Your task to perform on an android device: Go to sound settings Image 0: 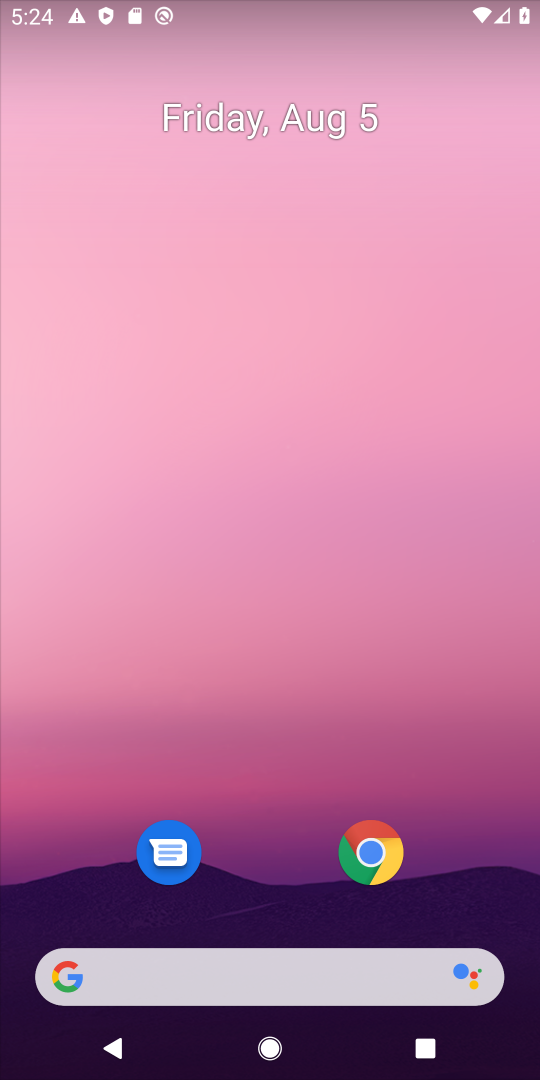
Step 0: drag from (278, 803) to (340, 275)
Your task to perform on an android device: Go to sound settings Image 1: 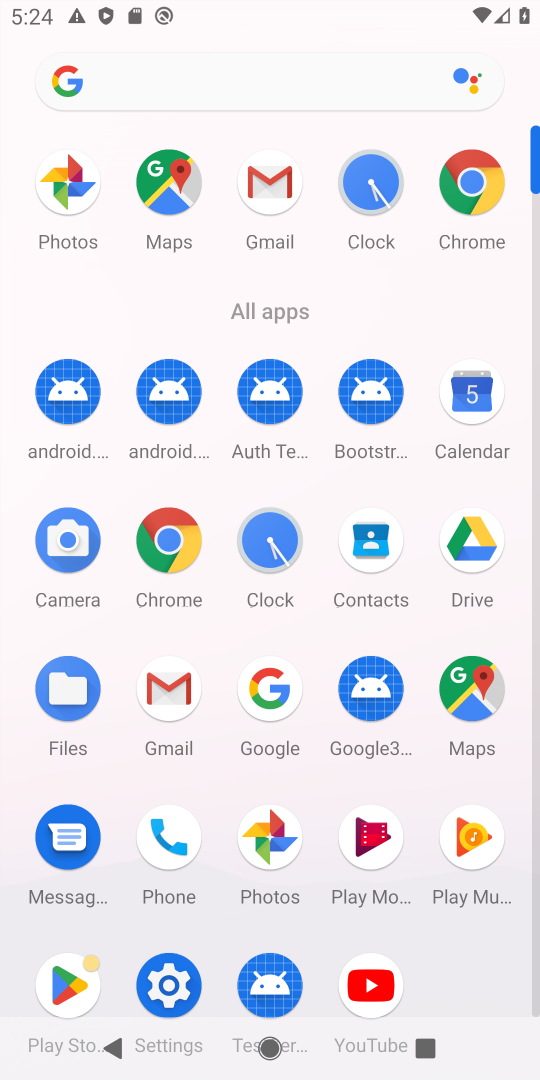
Step 1: click (166, 966)
Your task to perform on an android device: Go to sound settings Image 2: 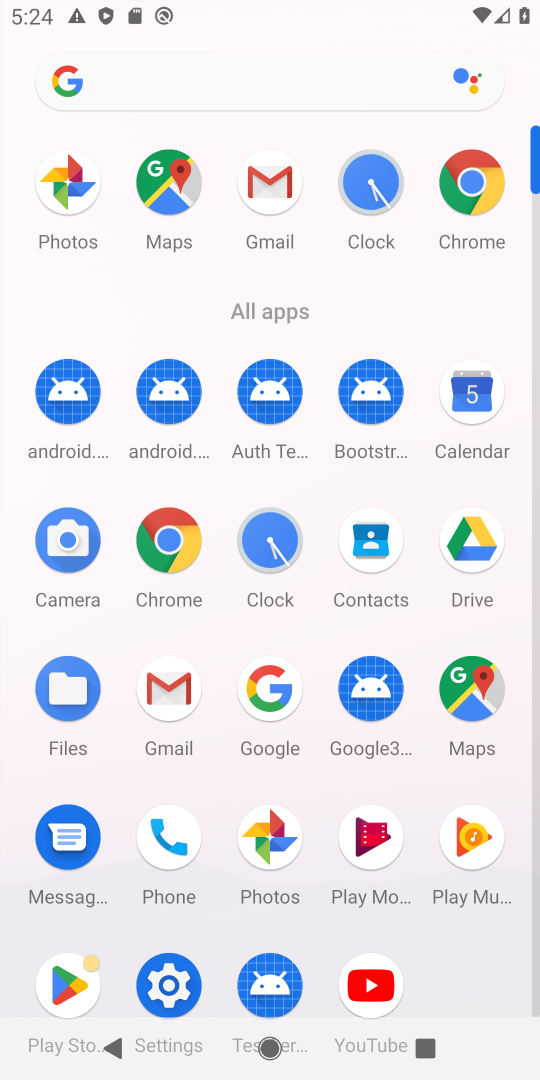
Step 2: click (169, 989)
Your task to perform on an android device: Go to sound settings Image 3: 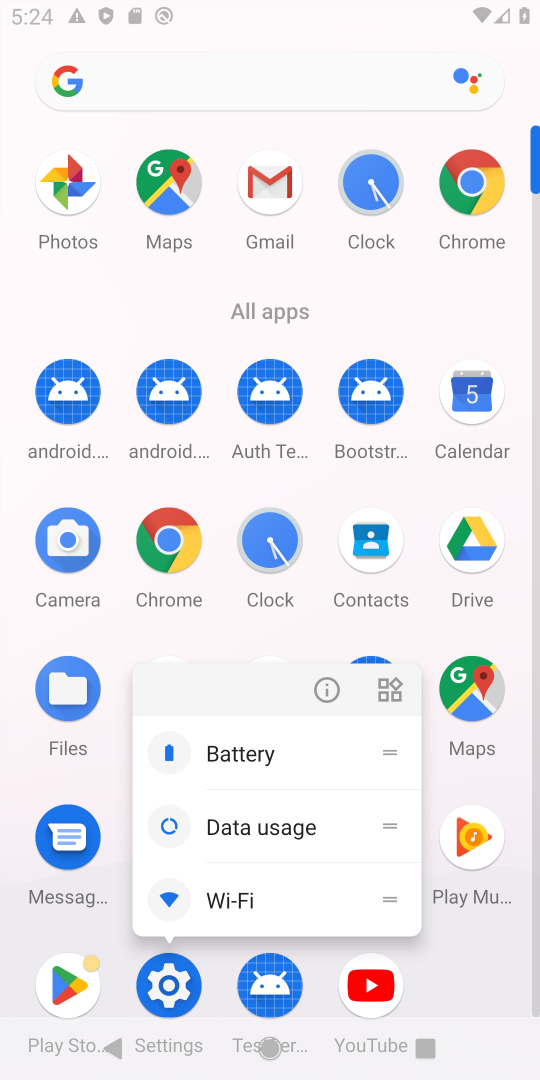
Step 3: click (166, 973)
Your task to perform on an android device: Go to sound settings Image 4: 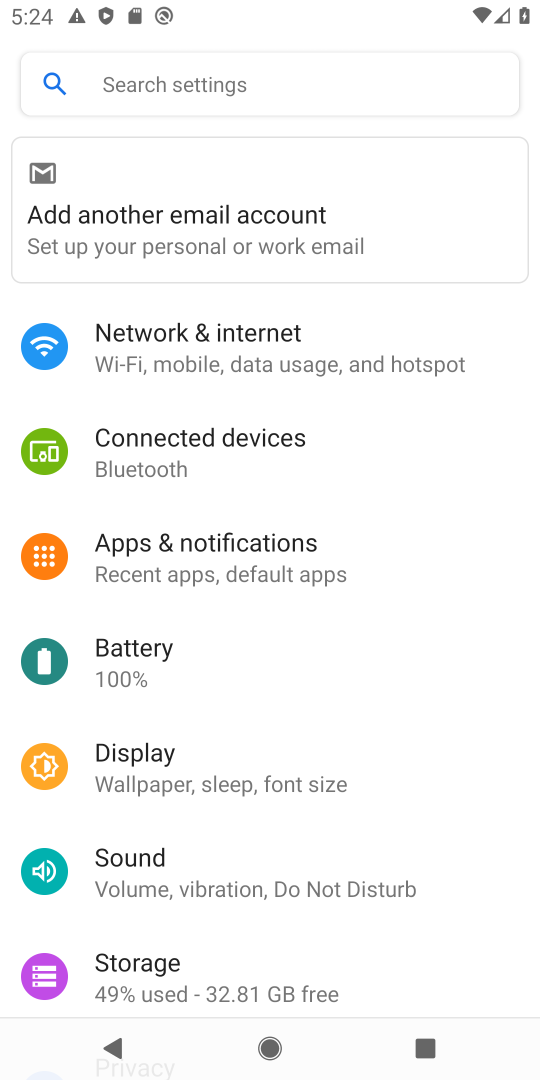
Step 4: click (180, 892)
Your task to perform on an android device: Go to sound settings Image 5: 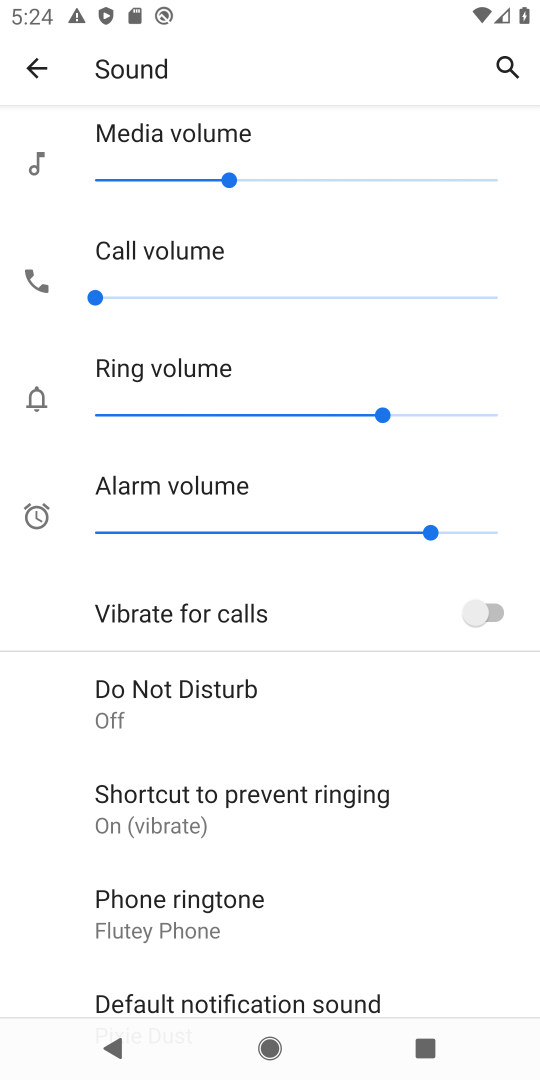
Step 5: task complete